Your task to perform on an android device: Add razer naga to the cart on newegg.com Image 0: 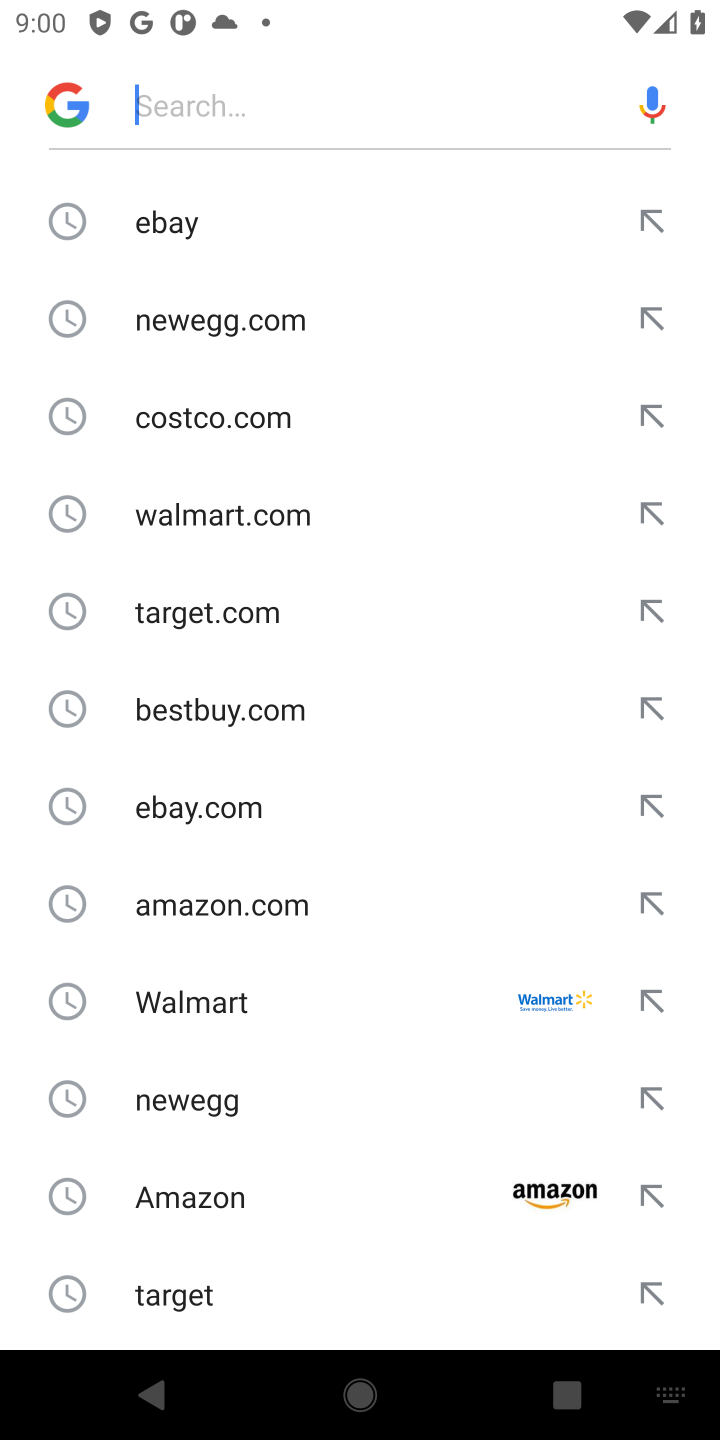
Step 0: press home button
Your task to perform on an android device: Add razer naga to the cart on newegg.com Image 1: 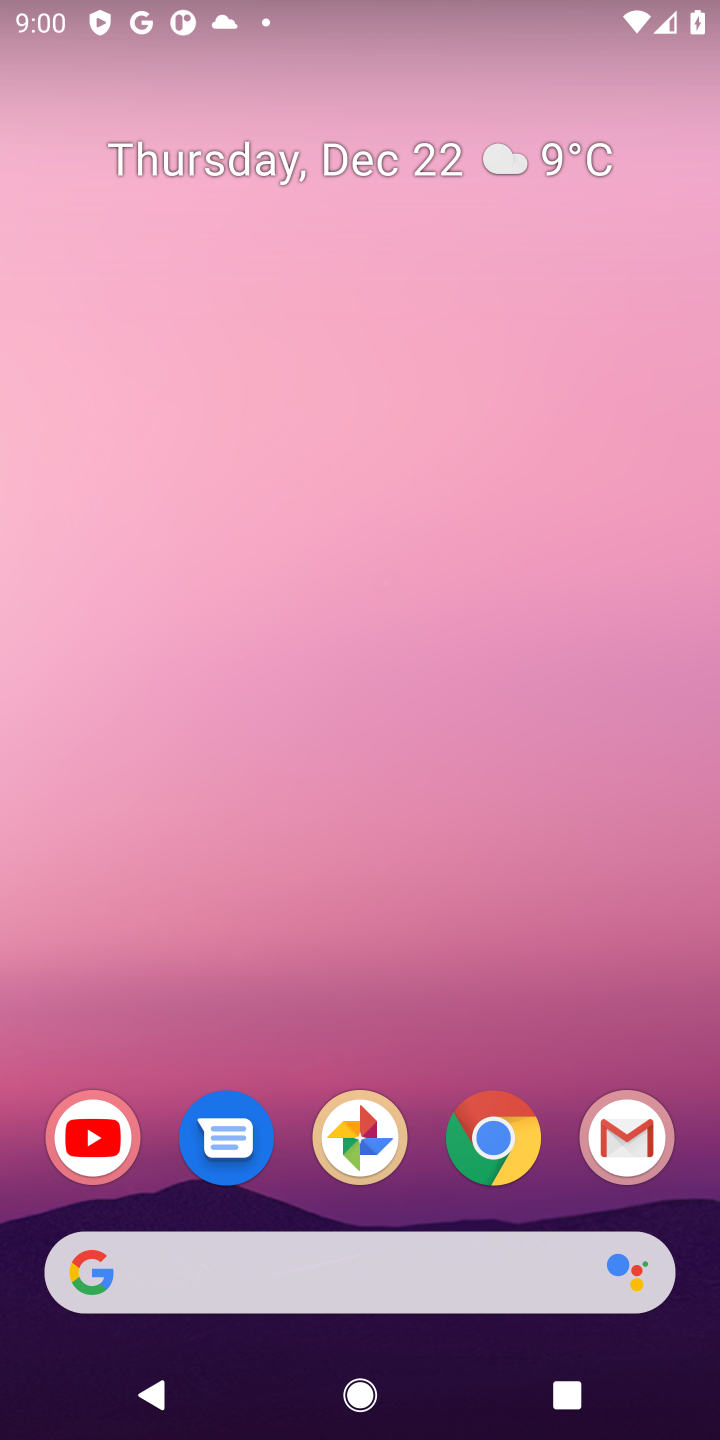
Step 1: click (492, 1146)
Your task to perform on an android device: Add razer naga to the cart on newegg.com Image 2: 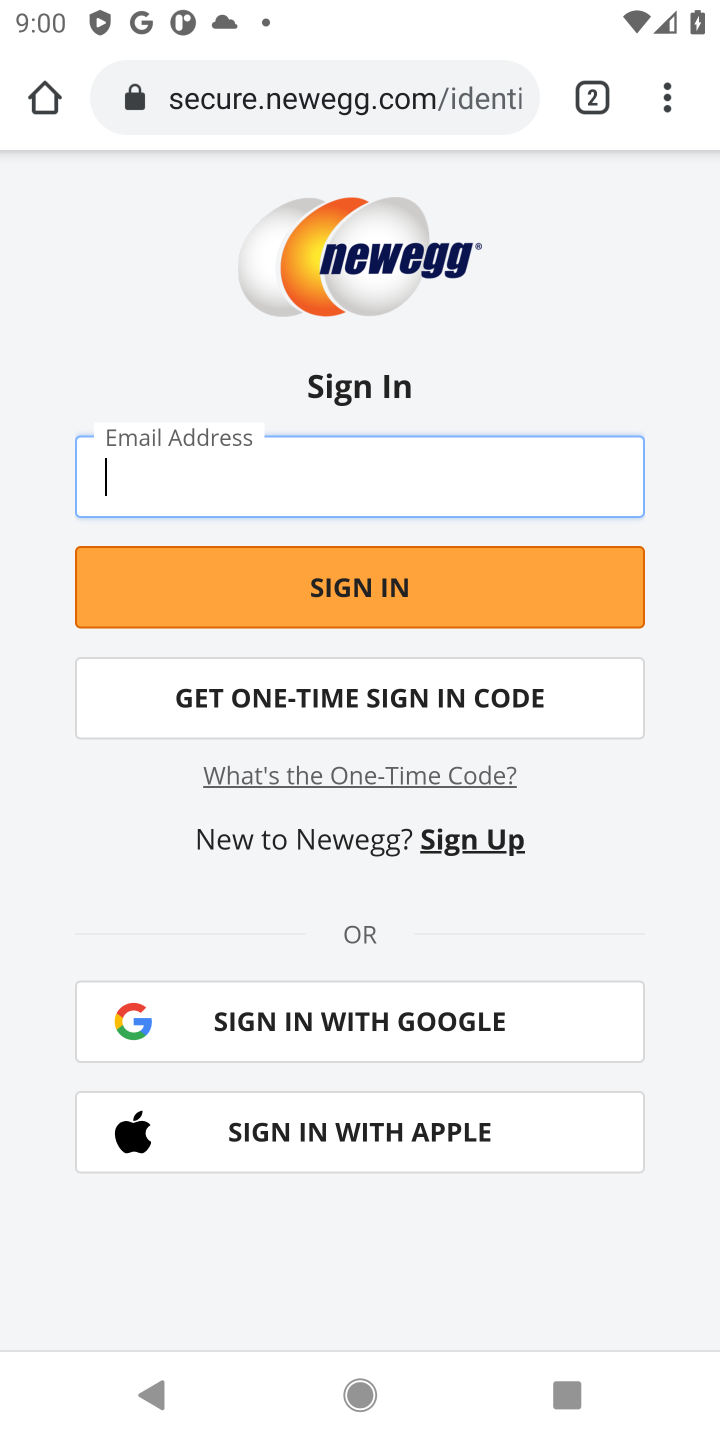
Step 2: click (231, 109)
Your task to perform on an android device: Add razer naga to the cart on newegg.com Image 3: 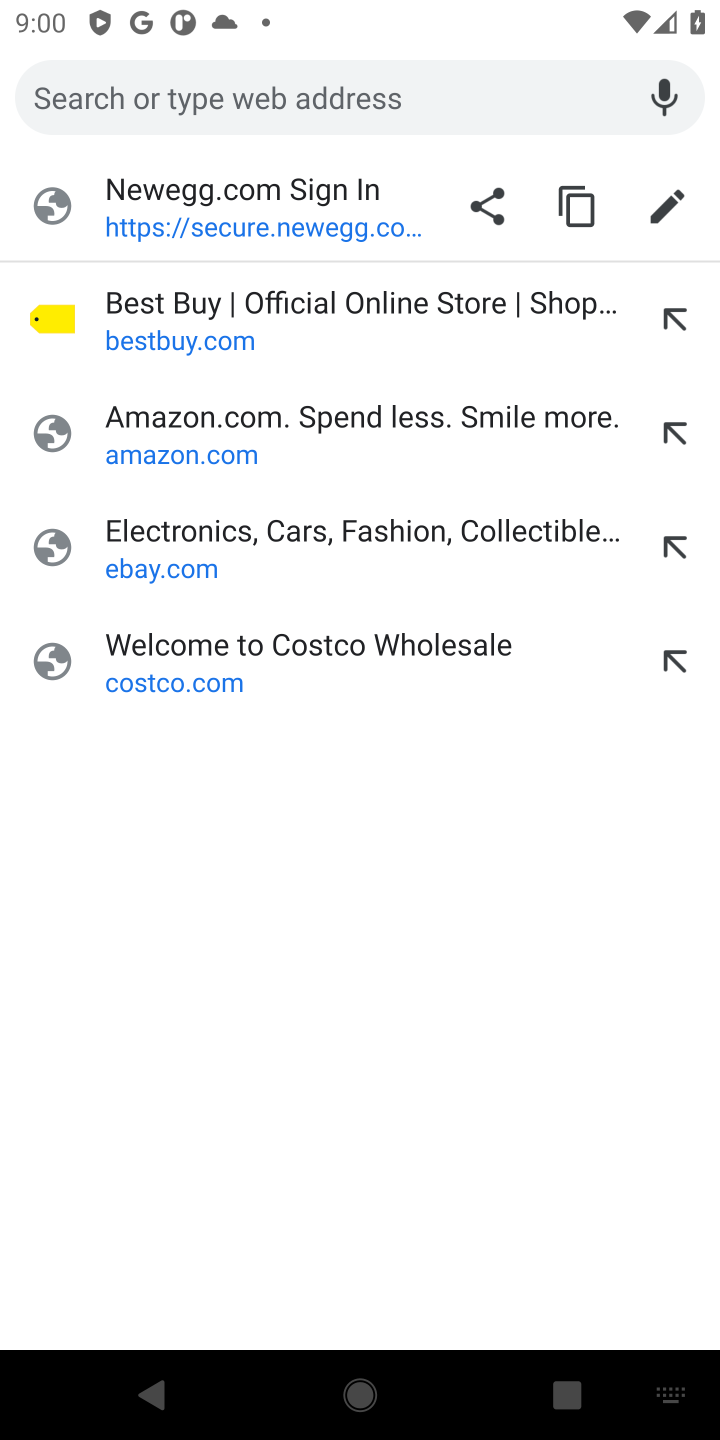
Step 3: type "newegg.com"
Your task to perform on an android device: Add razer naga to the cart on newegg.com Image 4: 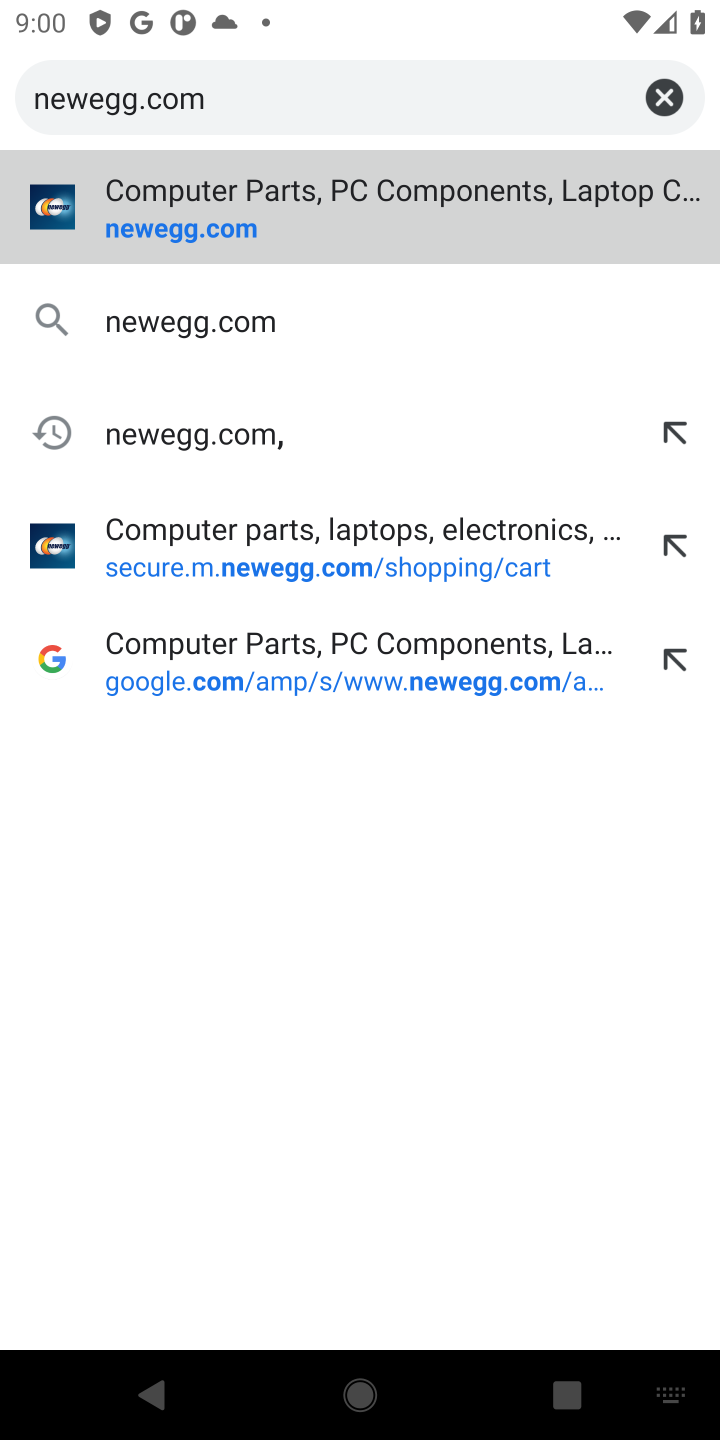
Step 4: press enter
Your task to perform on an android device: Add razer naga to the cart on newegg.com Image 5: 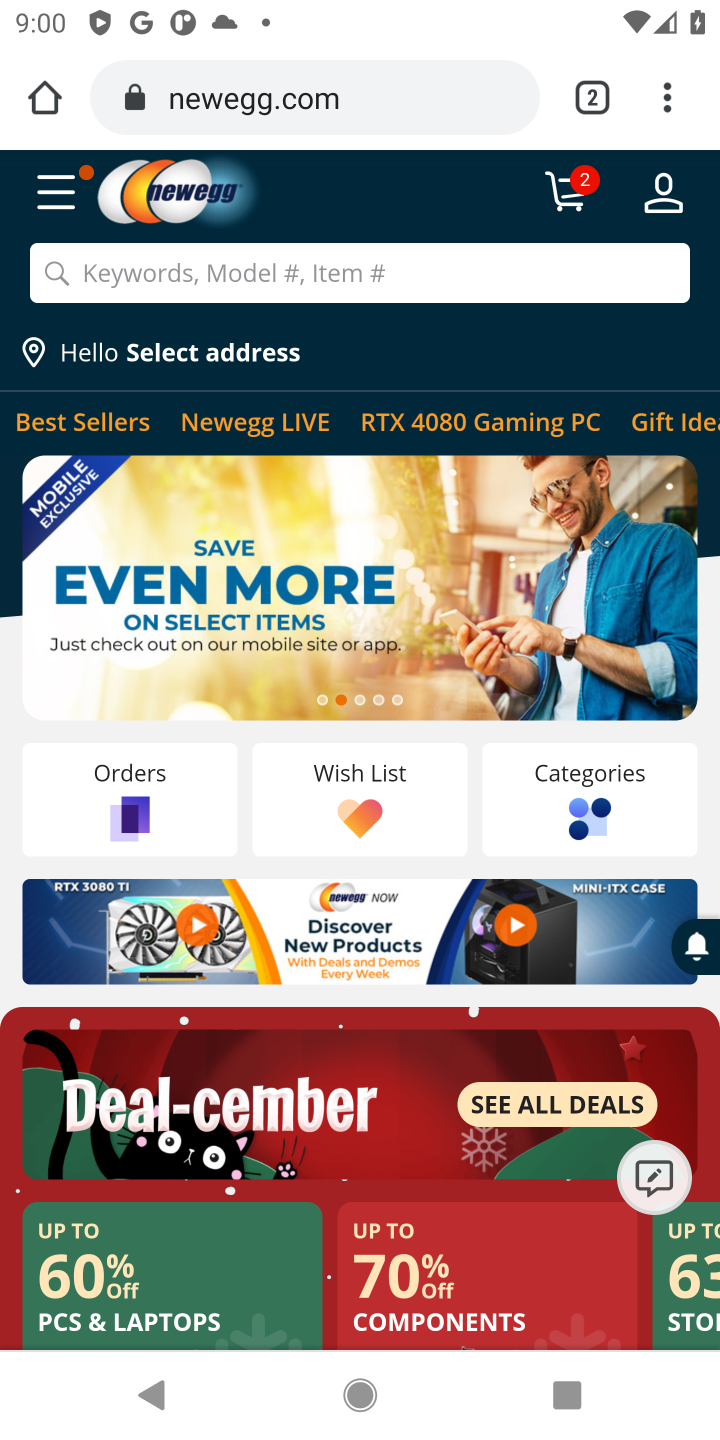
Step 5: type "newegg.com"
Your task to perform on an android device: Add razer naga to the cart on newegg.com Image 6: 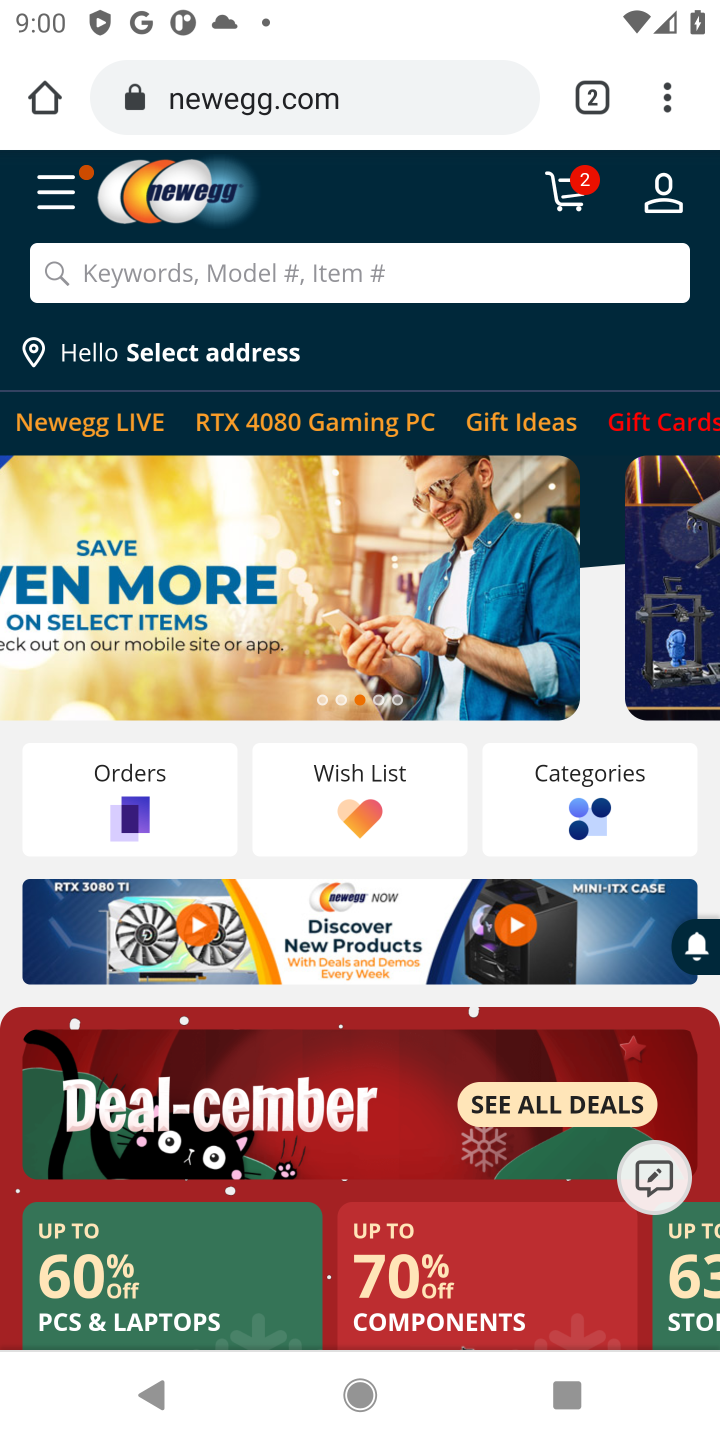
Step 6: click (356, 276)
Your task to perform on an android device: Add razer naga to the cart on newegg.com Image 7: 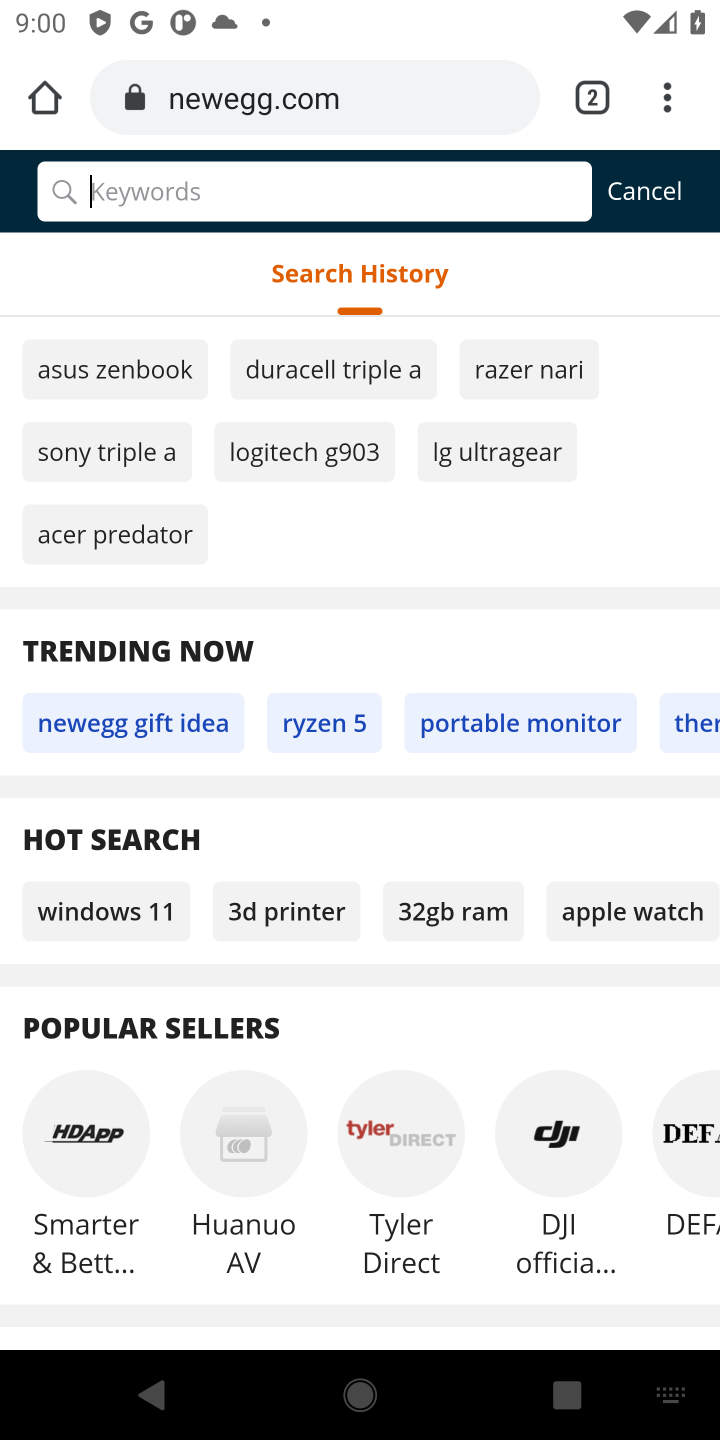
Step 7: type "razer naga"
Your task to perform on an android device: Add razer naga to the cart on newegg.com Image 8: 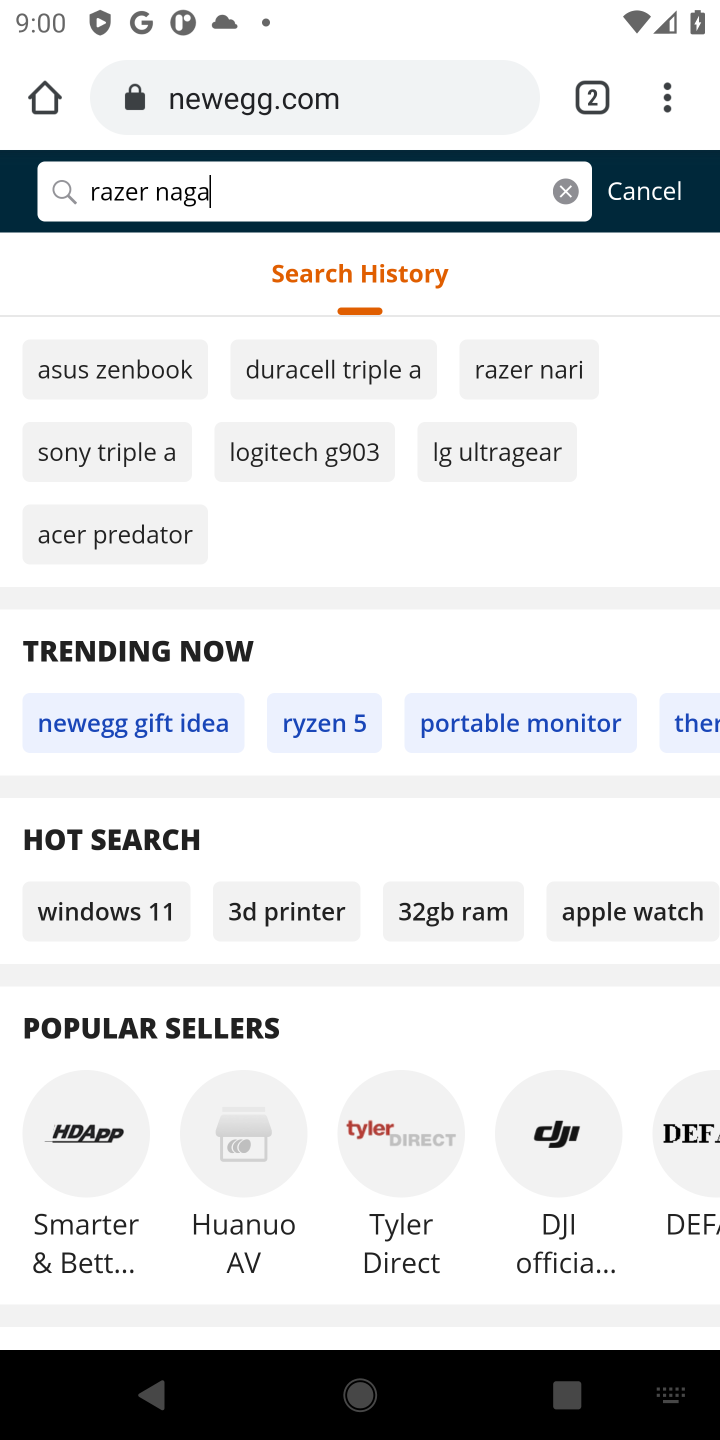
Step 8: press enter
Your task to perform on an android device: Add razer naga to the cart on newegg.com Image 9: 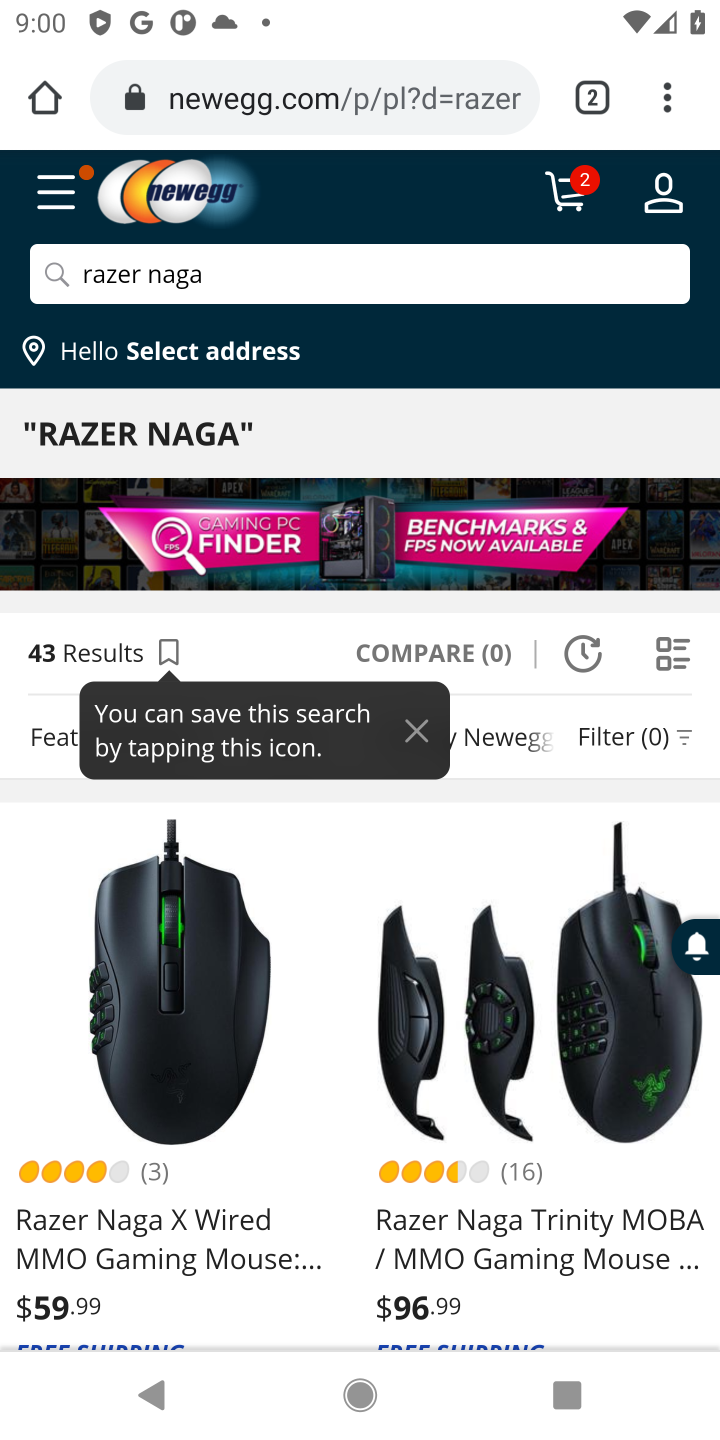
Step 9: click (62, 1074)
Your task to perform on an android device: Add razer naga to the cart on newegg.com Image 10: 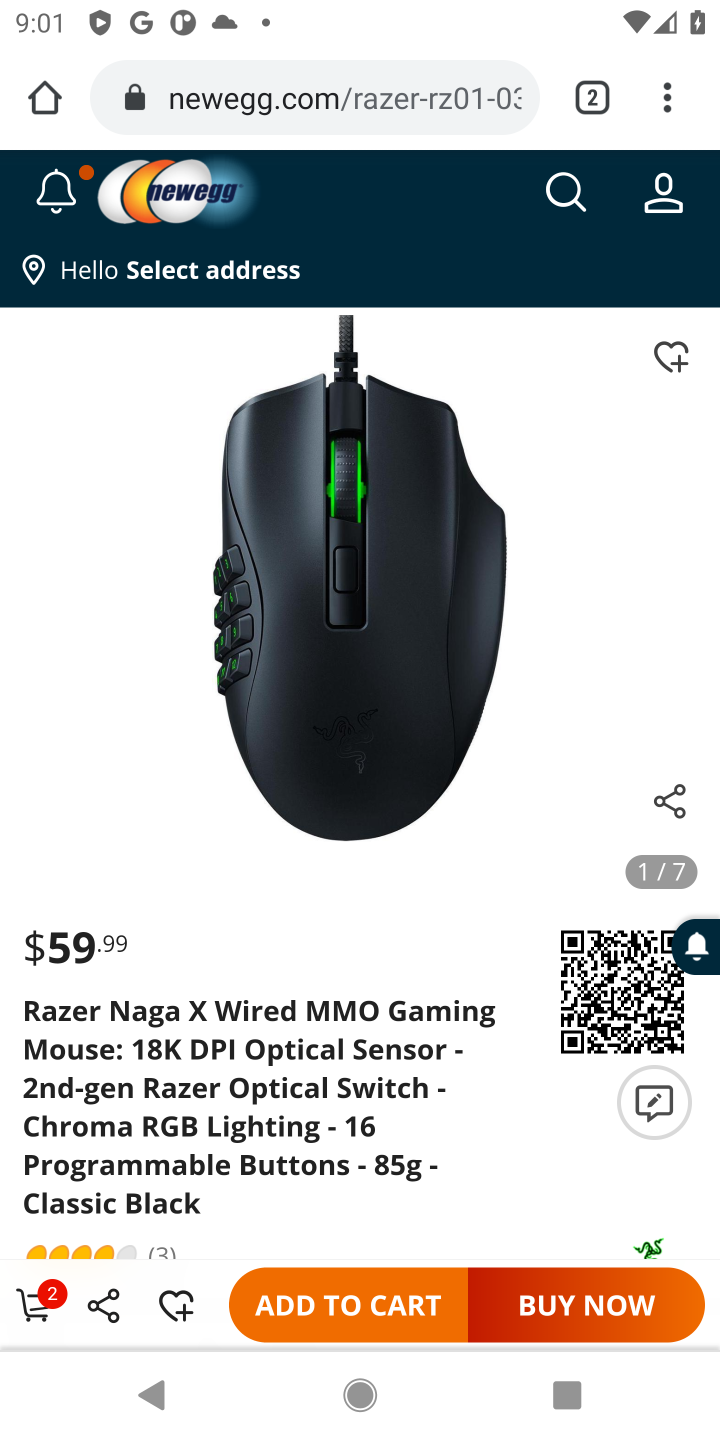
Step 10: click (322, 1320)
Your task to perform on an android device: Add razer naga to the cart on newegg.com Image 11: 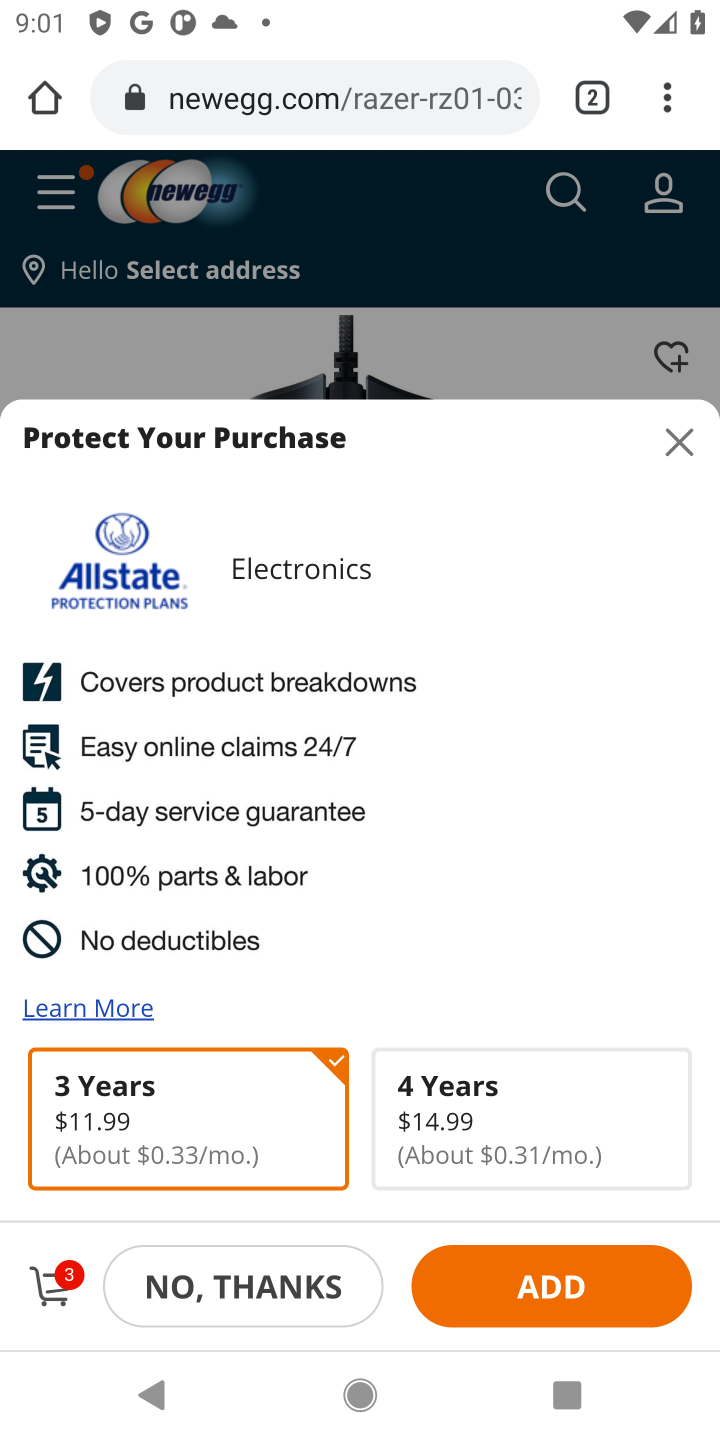
Step 11: click (556, 1300)
Your task to perform on an android device: Add razer naga to the cart on newegg.com Image 12: 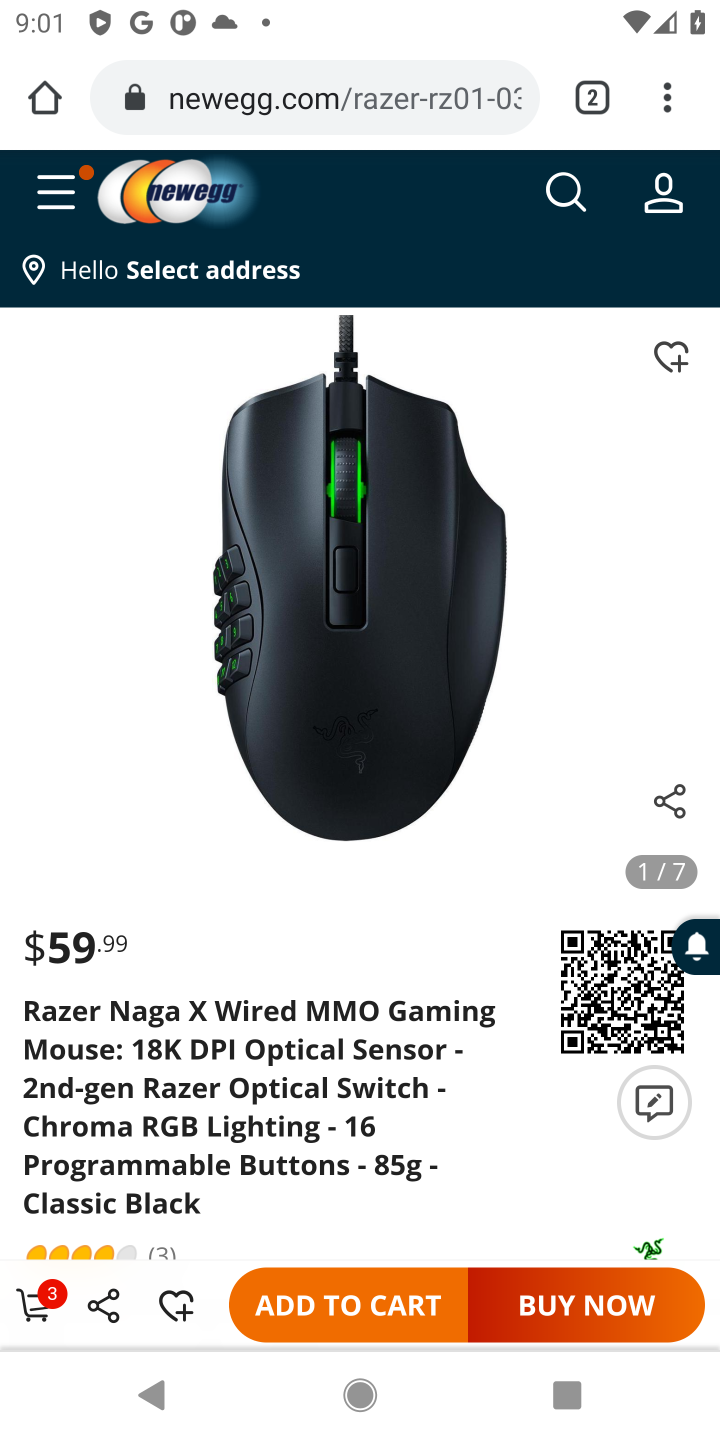
Step 12: click (28, 1307)
Your task to perform on an android device: Add razer naga to the cart on newegg.com Image 13: 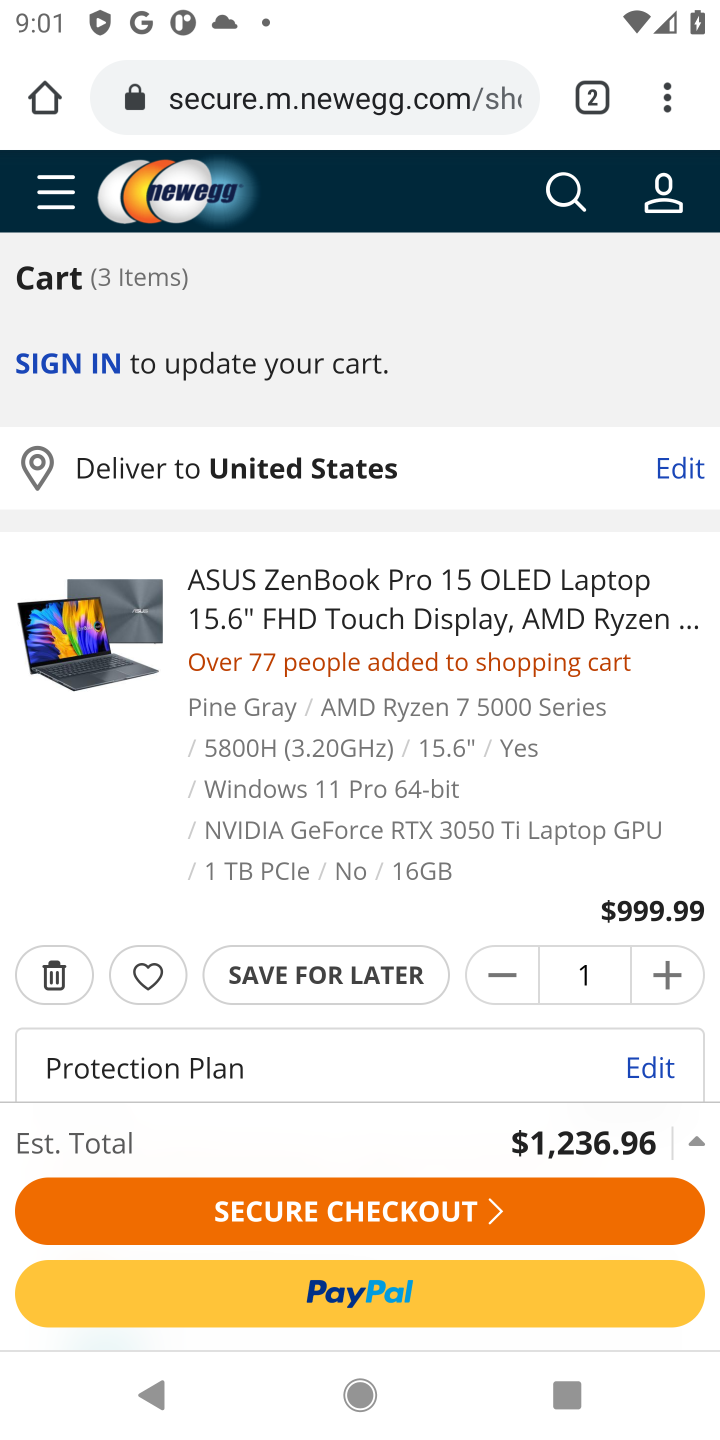
Step 13: task complete